Your task to perform on an android device: turn on sleep mode Image 0: 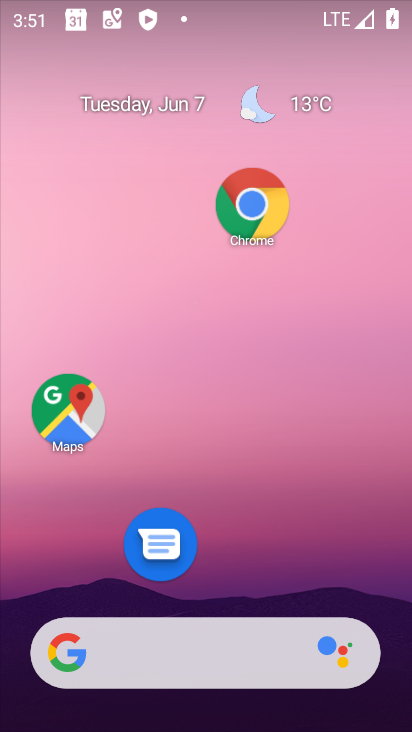
Step 0: drag from (232, 571) to (230, 45)
Your task to perform on an android device: turn on sleep mode Image 1: 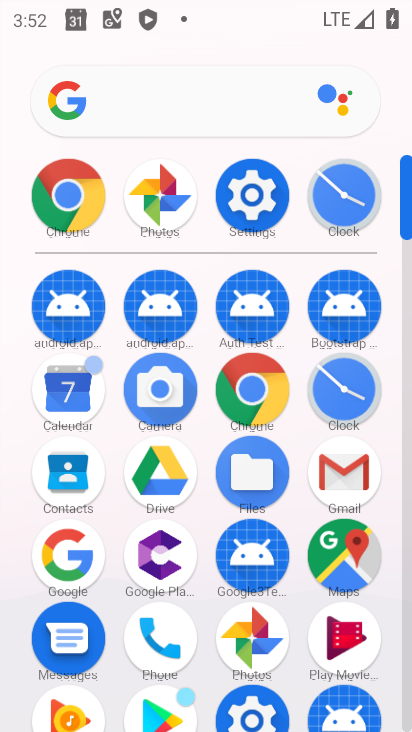
Step 1: task complete